Your task to perform on an android device: set the timer Image 0: 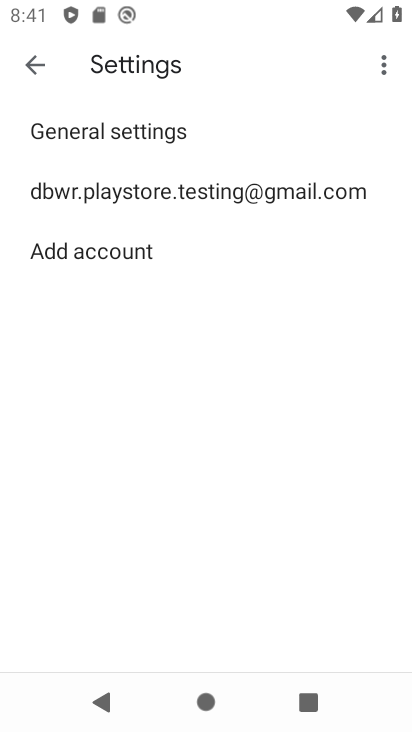
Step 0: press home button
Your task to perform on an android device: set the timer Image 1: 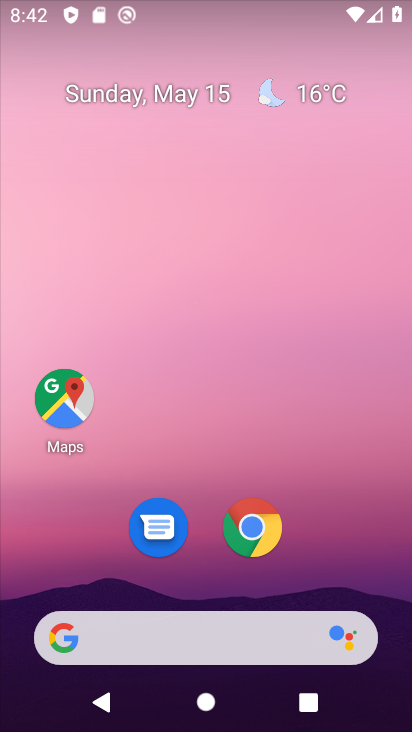
Step 1: drag from (364, 577) to (329, 42)
Your task to perform on an android device: set the timer Image 2: 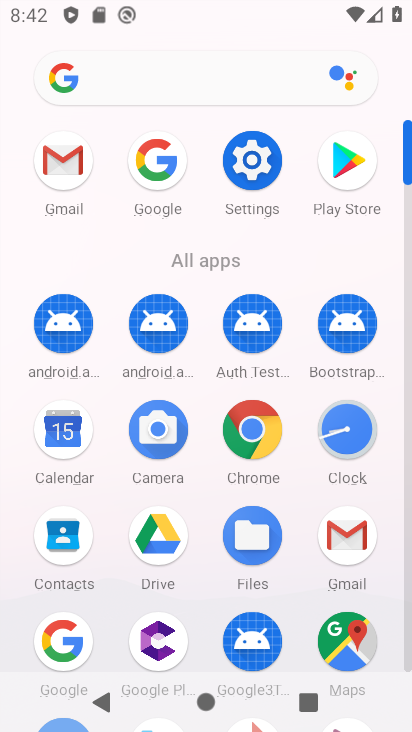
Step 2: click (359, 439)
Your task to perform on an android device: set the timer Image 3: 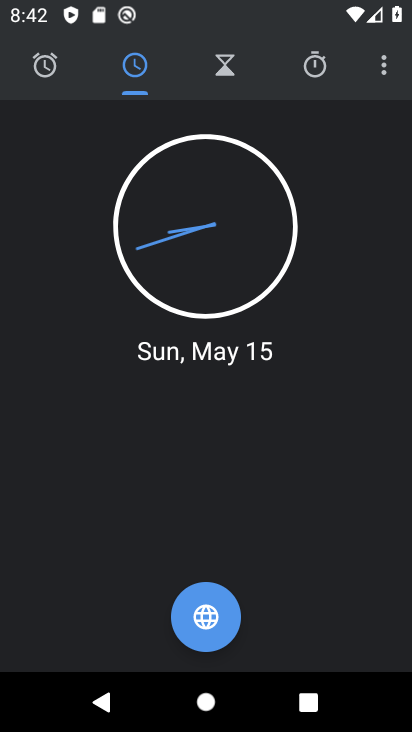
Step 3: click (220, 64)
Your task to perform on an android device: set the timer Image 4: 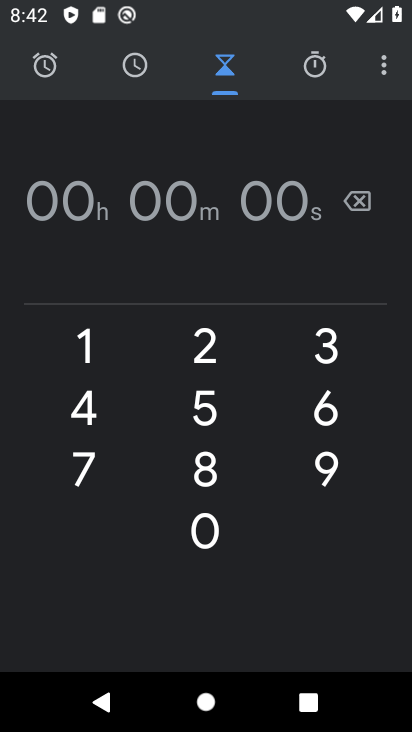
Step 4: click (87, 414)
Your task to perform on an android device: set the timer Image 5: 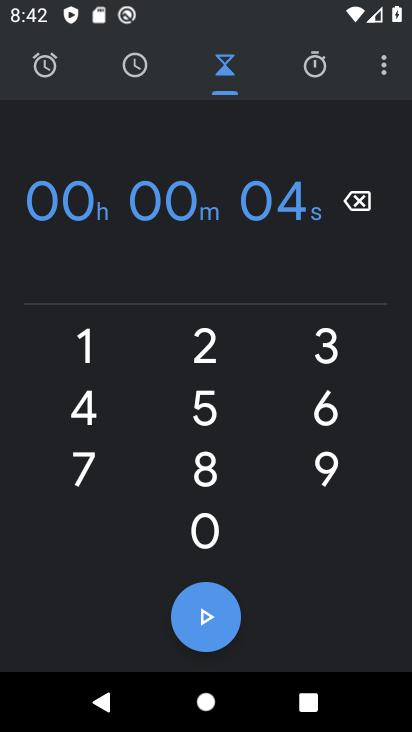
Step 5: click (210, 423)
Your task to perform on an android device: set the timer Image 6: 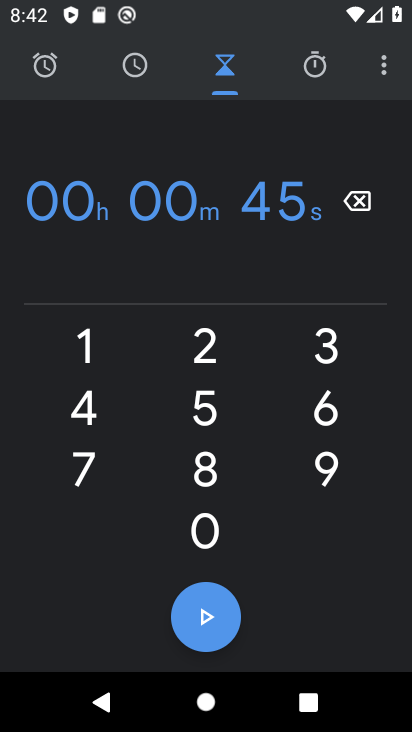
Step 6: click (202, 628)
Your task to perform on an android device: set the timer Image 7: 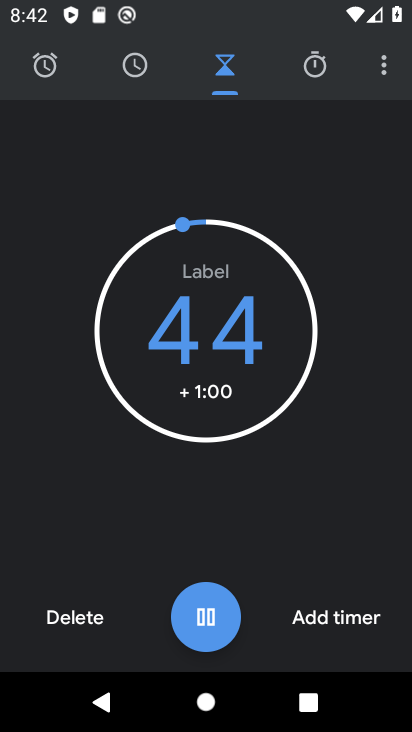
Step 7: task complete